Your task to perform on an android device: install app "Google Play Games" Image 0: 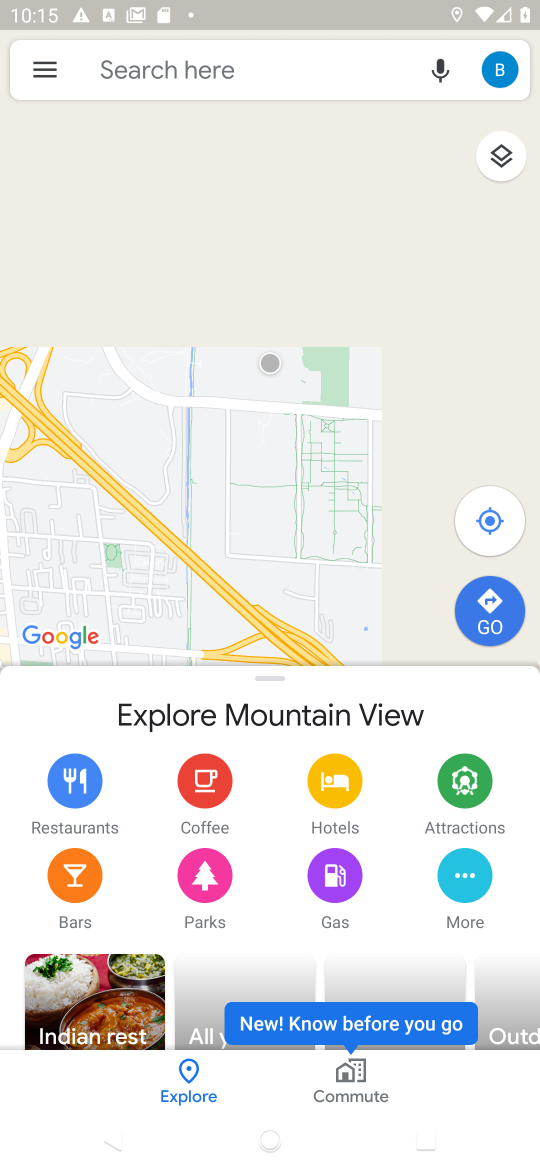
Step 0: press home button
Your task to perform on an android device: install app "Google Play Games" Image 1: 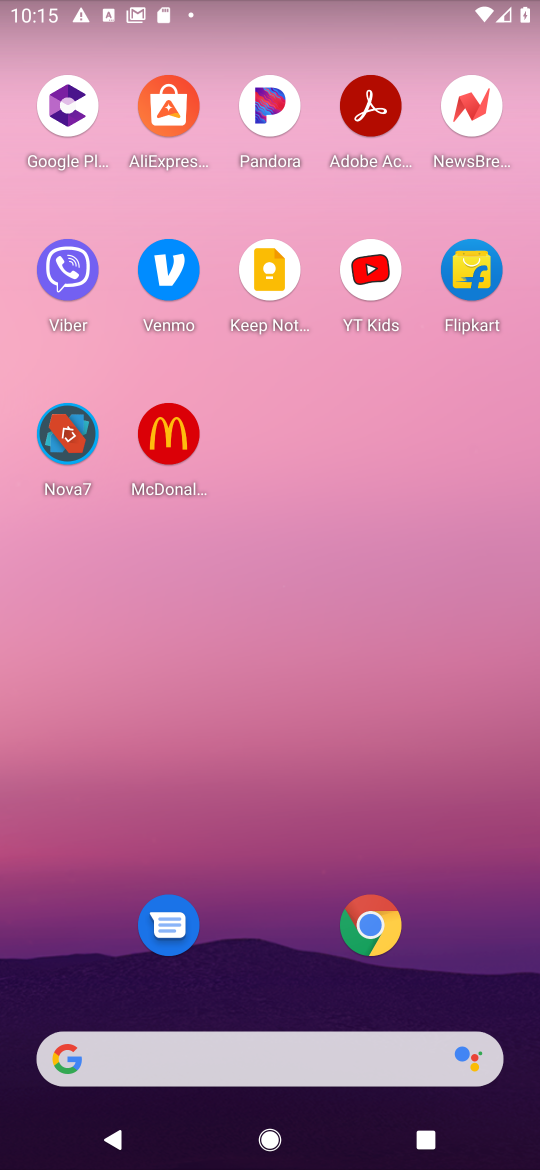
Step 1: drag from (233, 964) to (221, 104)
Your task to perform on an android device: install app "Google Play Games" Image 2: 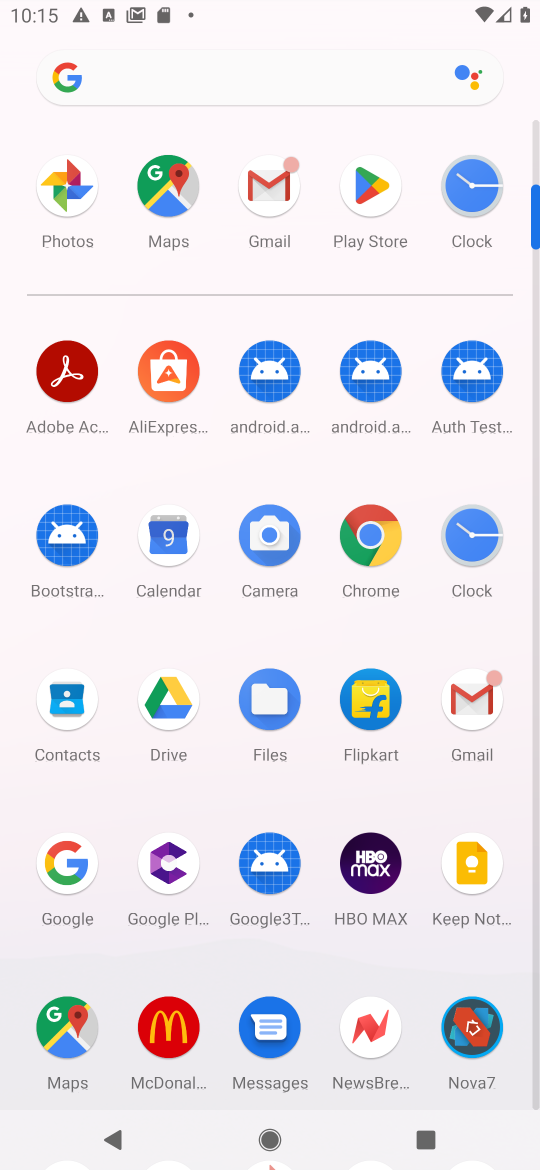
Step 2: click (358, 183)
Your task to perform on an android device: install app "Google Play Games" Image 3: 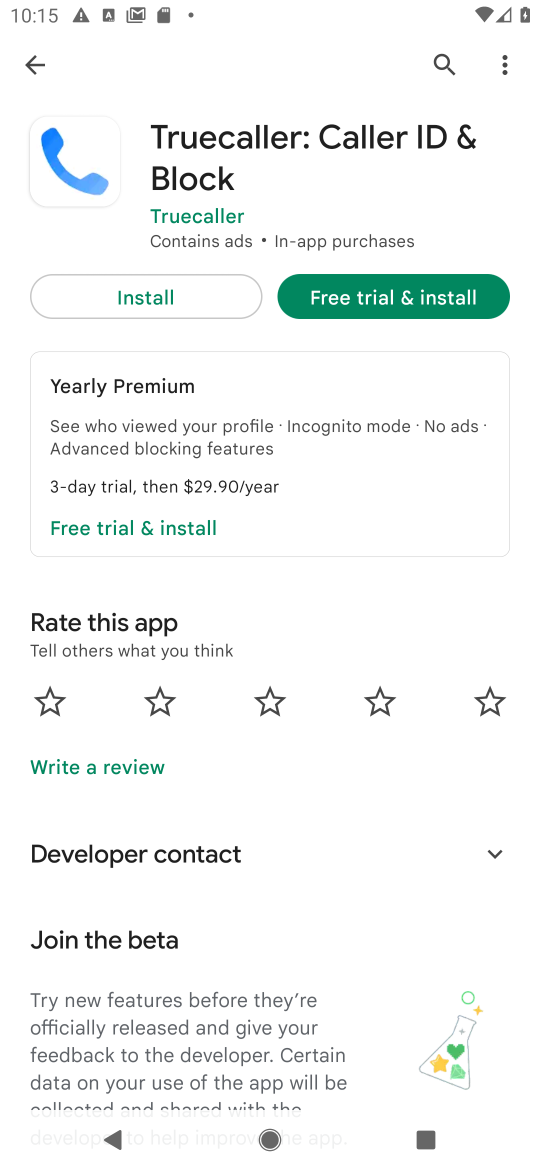
Step 3: click (48, 65)
Your task to perform on an android device: install app "Google Play Games" Image 4: 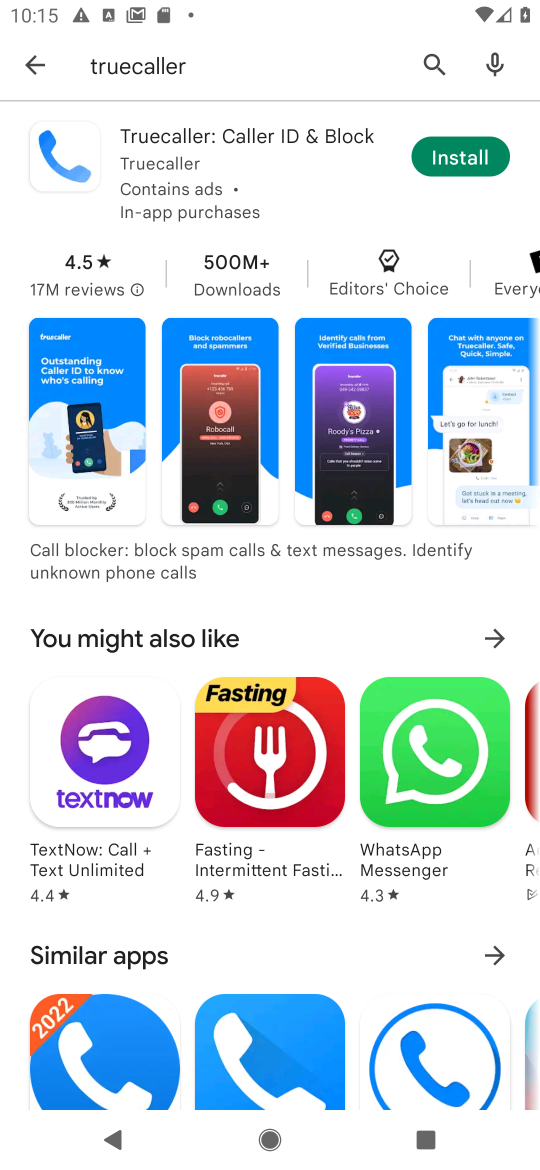
Step 4: click (48, 65)
Your task to perform on an android device: install app "Google Play Games" Image 5: 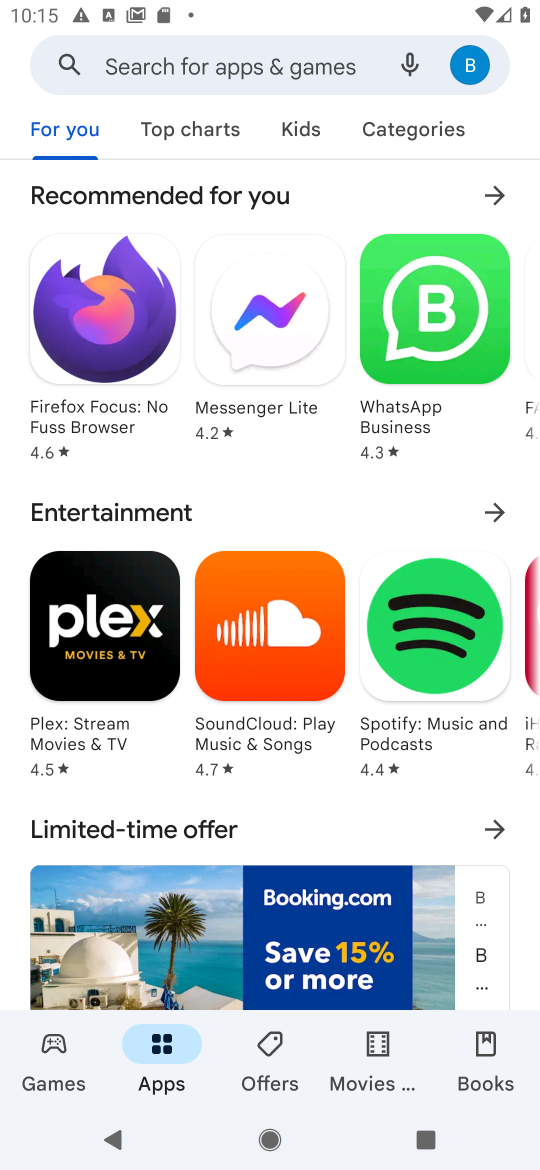
Step 5: click (183, 64)
Your task to perform on an android device: install app "Google Play Games" Image 6: 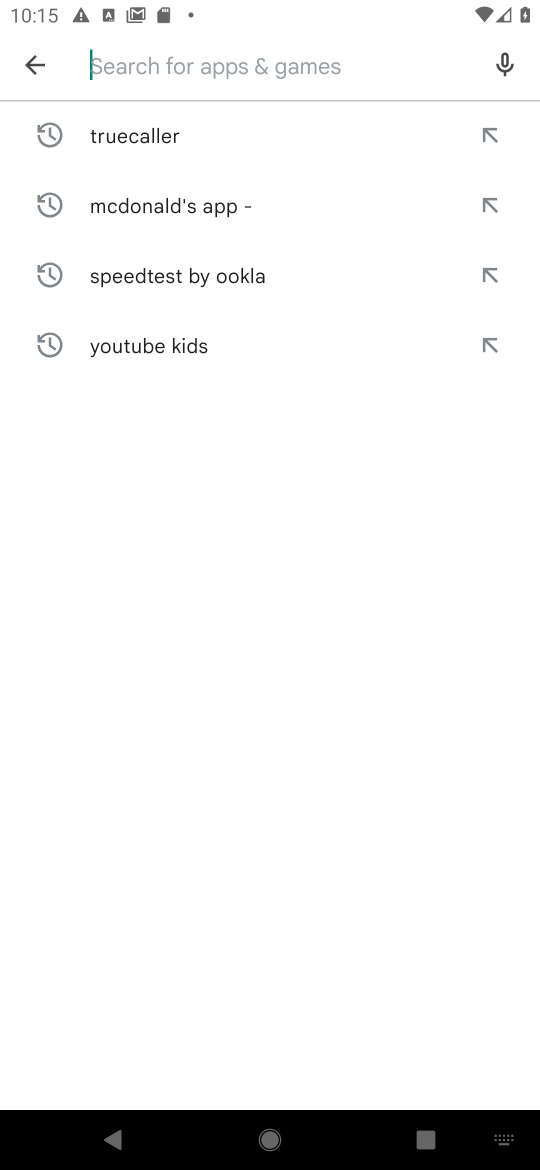
Step 6: type "Google Play Games"
Your task to perform on an android device: install app "Google Play Games" Image 7: 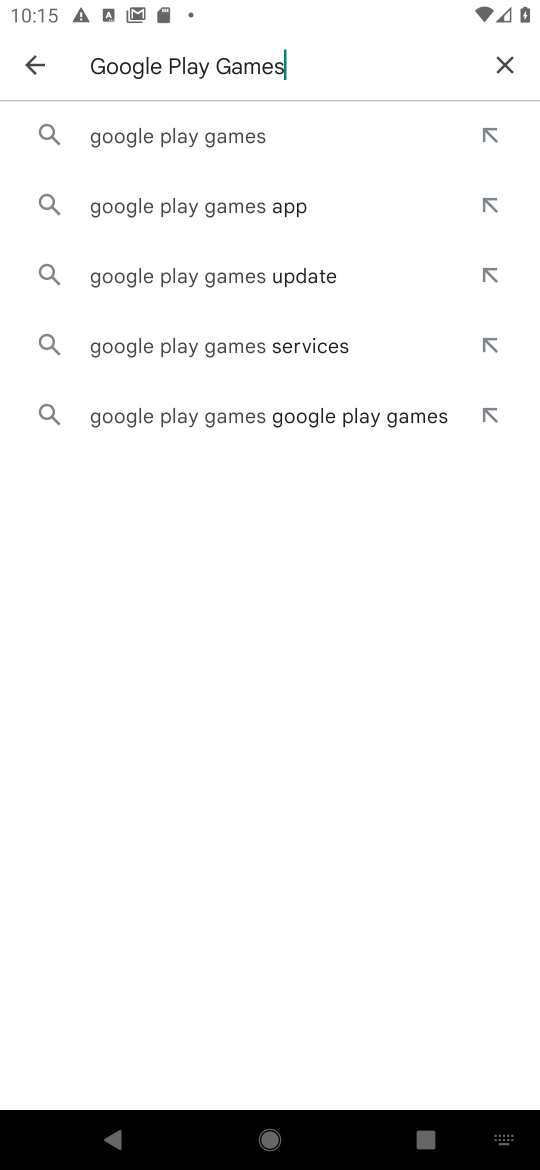
Step 7: click (138, 151)
Your task to perform on an android device: install app "Google Play Games" Image 8: 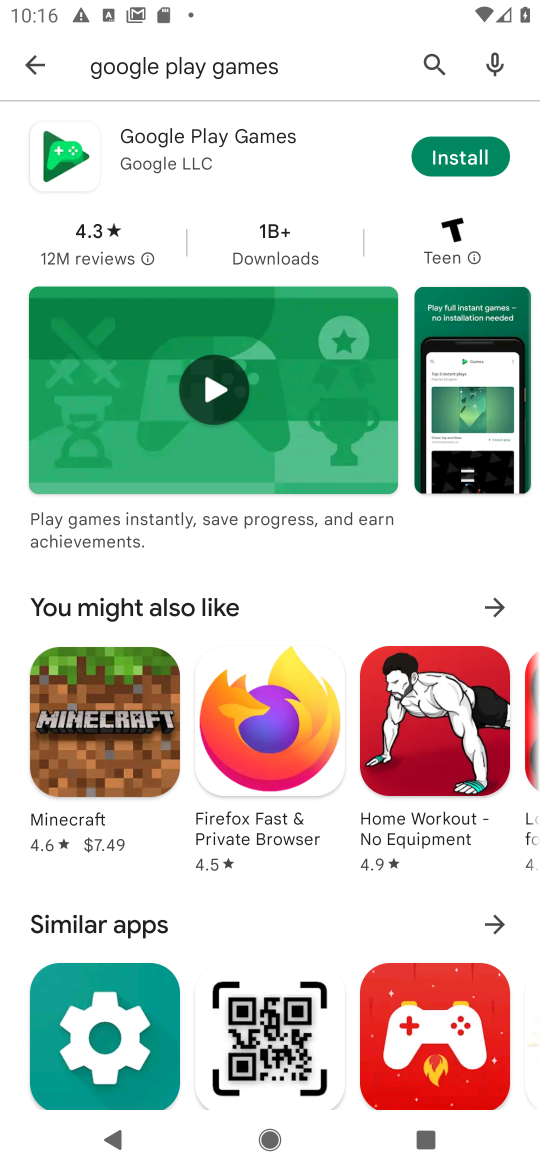
Step 8: click (451, 158)
Your task to perform on an android device: install app "Google Play Games" Image 9: 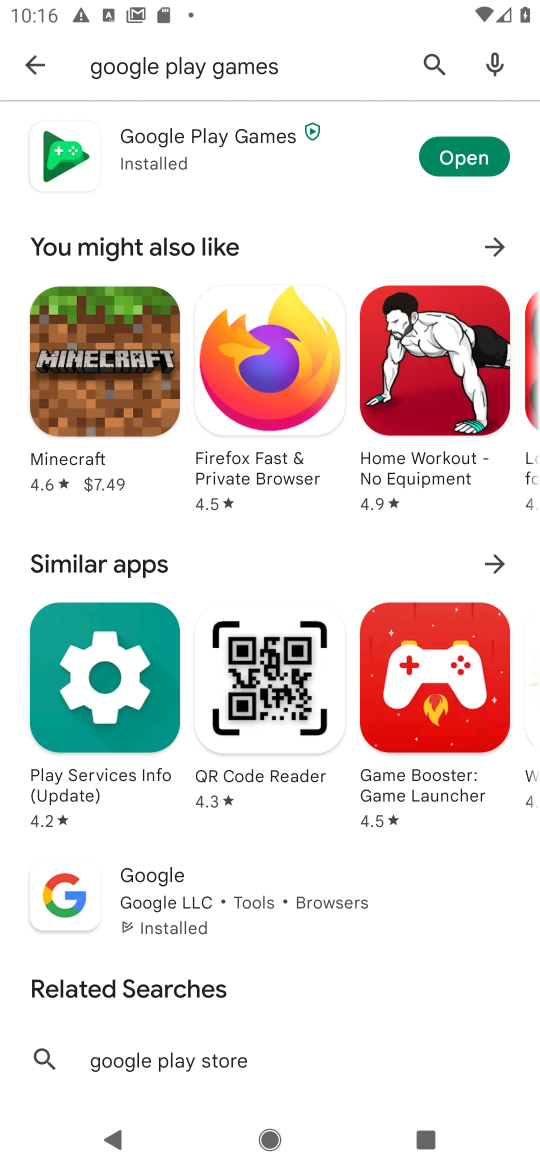
Step 9: click (477, 170)
Your task to perform on an android device: install app "Google Play Games" Image 10: 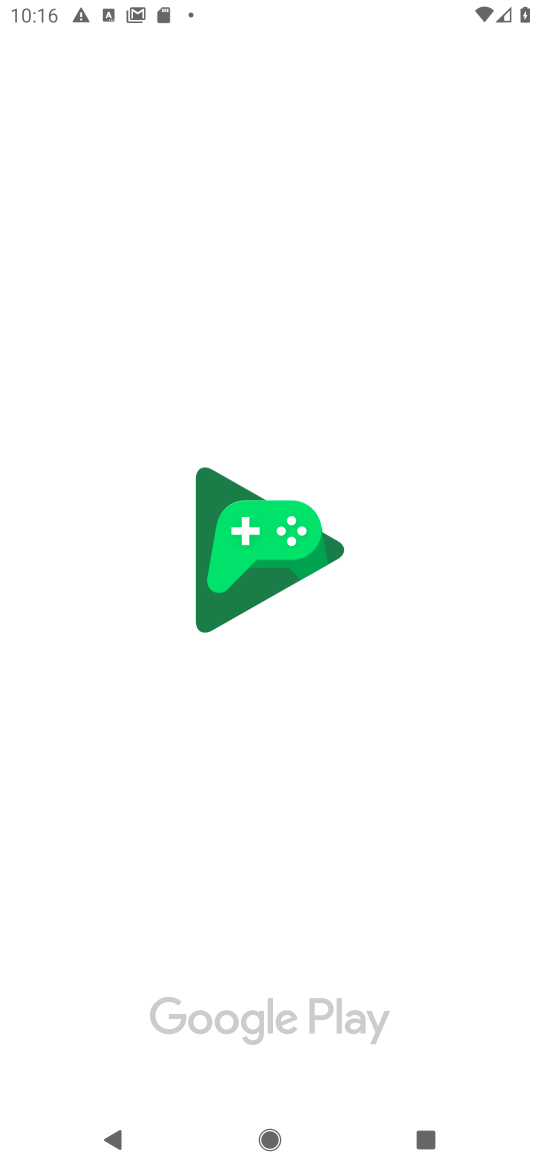
Step 10: task complete